Your task to perform on an android device: check android version Image 0: 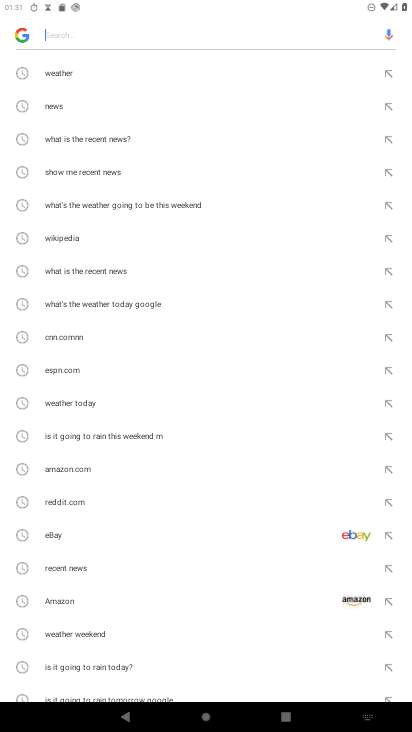
Step 0: press home button
Your task to perform on an android device: check android version Image 1: 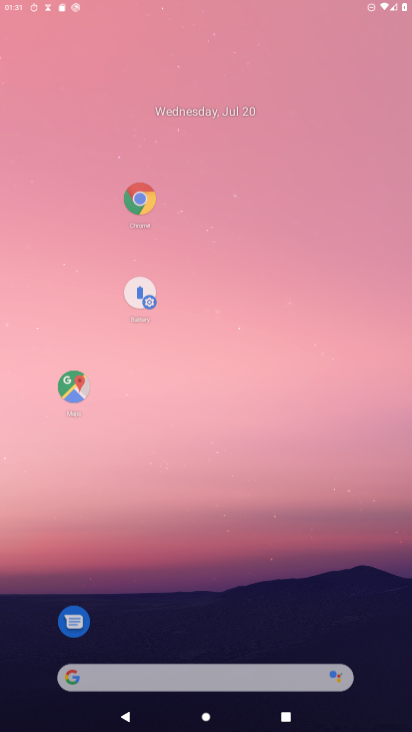
Step 1: drag from (148, 528) to (230, 95)
Your task to perform on an android device: check android version Image 2: 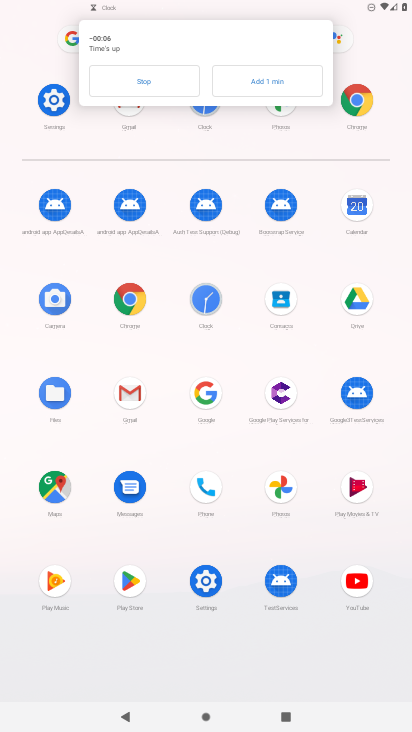
Step 2: click (202, 582)
Your task to perform on an android device: check android version Image 3: 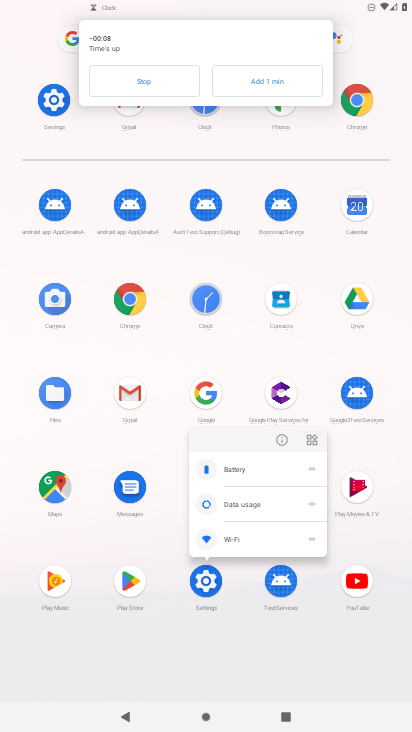
Step 3: click (280, 436)
Your task to perform on an android device: check android version Image 4: 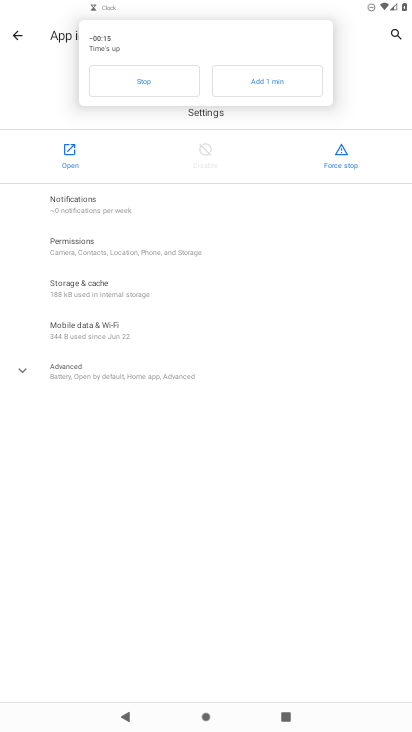
Step 4: click (166, 77)
Your task to perform on an android device: check android version Image 5: 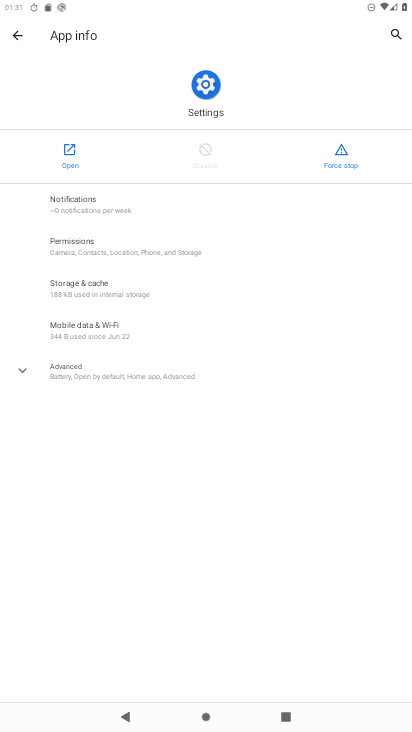
Step 5: click (70, 175)
Your task to perform on an android device: check android version Image 6: 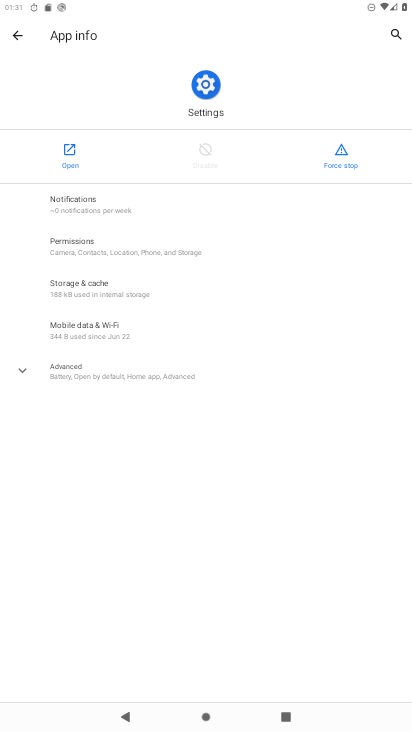
Step 6: click (68, 170)
Your task to perform on an android device: check android version Image 7: 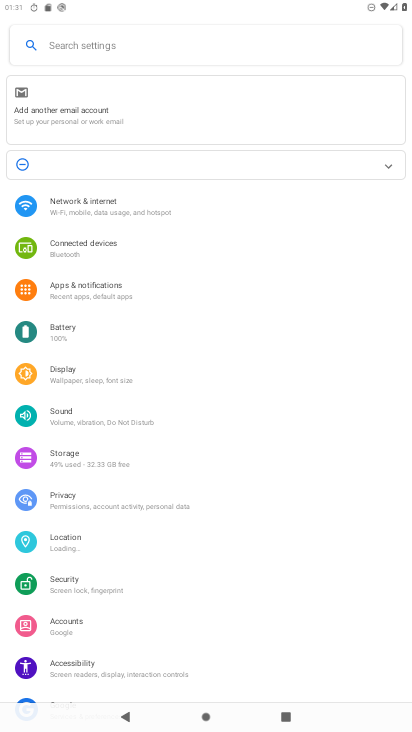
Step 7: drag from (156, 507) to (266, 23)
Your task to perform on an android device: check android version Image 8: 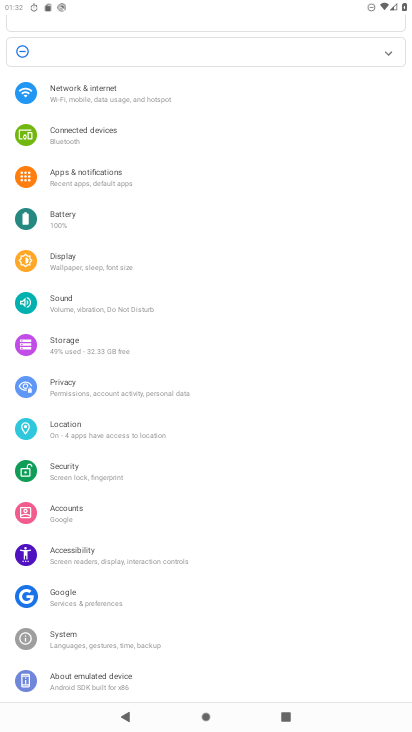
Step 8: click (110, 682)
Your task to perform on an android device: check android version Image 9: 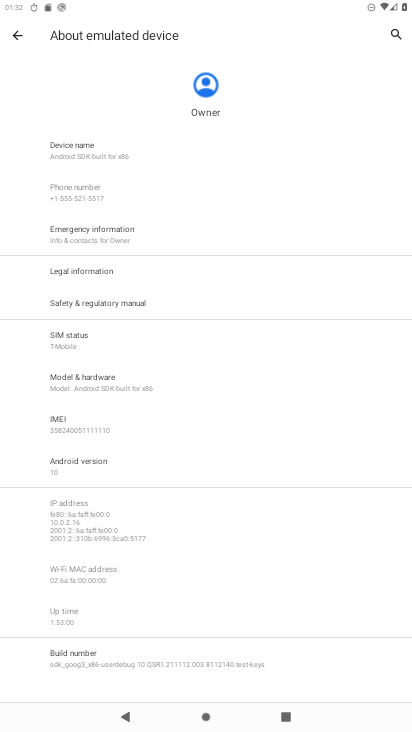
Step 9: click (145, 467)
Your task to perform on an android device: check android version Image 10: 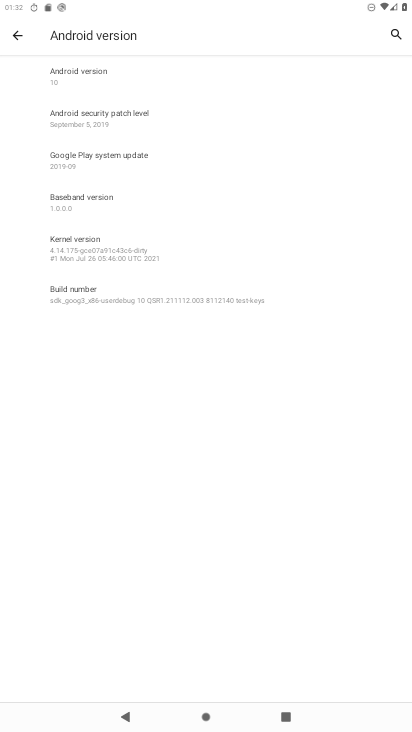
Step 10: task complete